Your task to perform on an android device: Open the stopwatch Image 0: 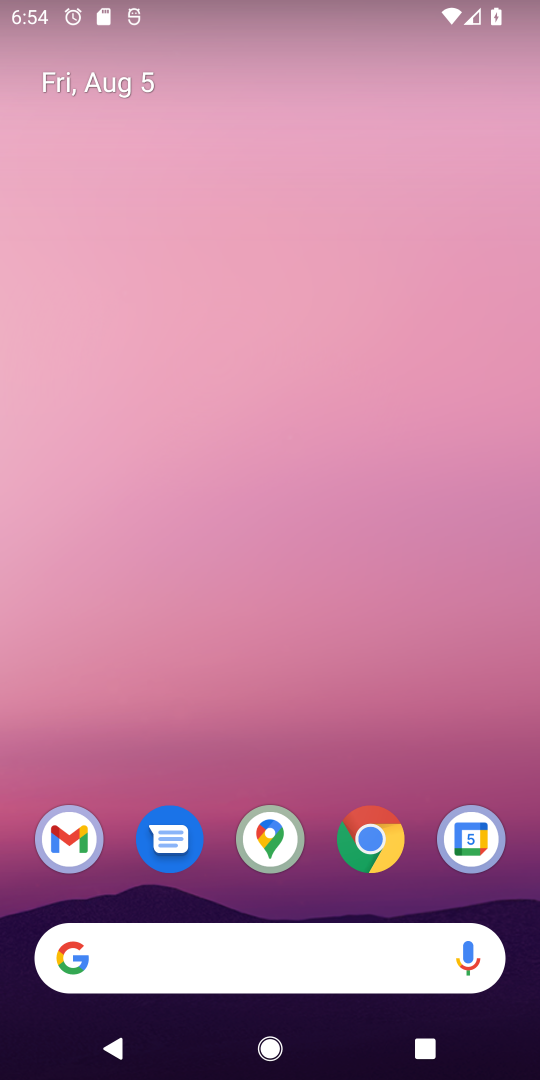
Step 0: drag from (311, 772) to (214, 78)
Your task to perform on an android device: Open the stopwatch Image 1: 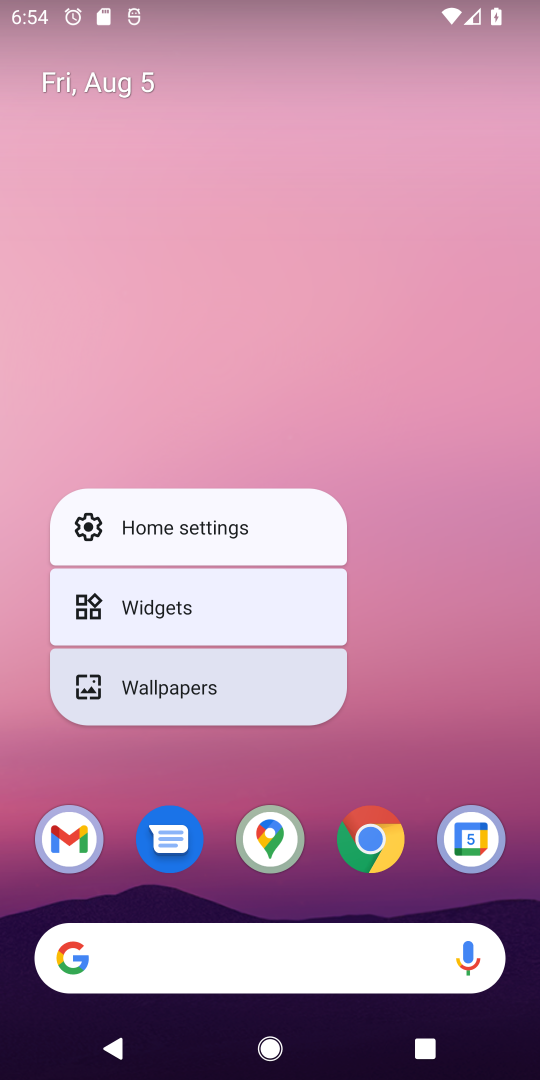
Step 1: click (233, 245)
Your task to perform on an android device: Open the stopwatch Image 2: 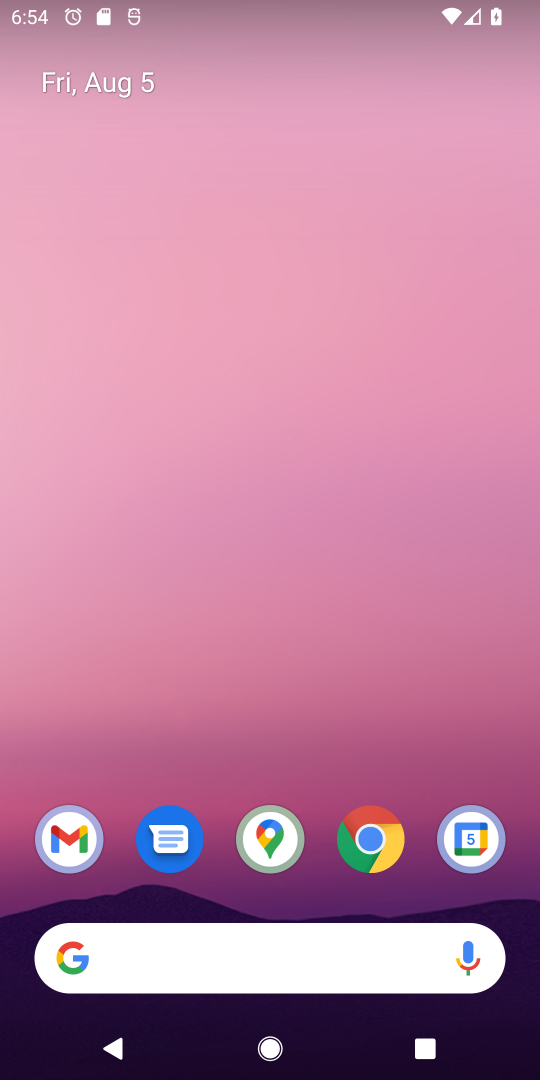
Step 2: drag from (257, 719) to (235, 137)
Your task to perform on an android device: Open the stopwatch Image 3: 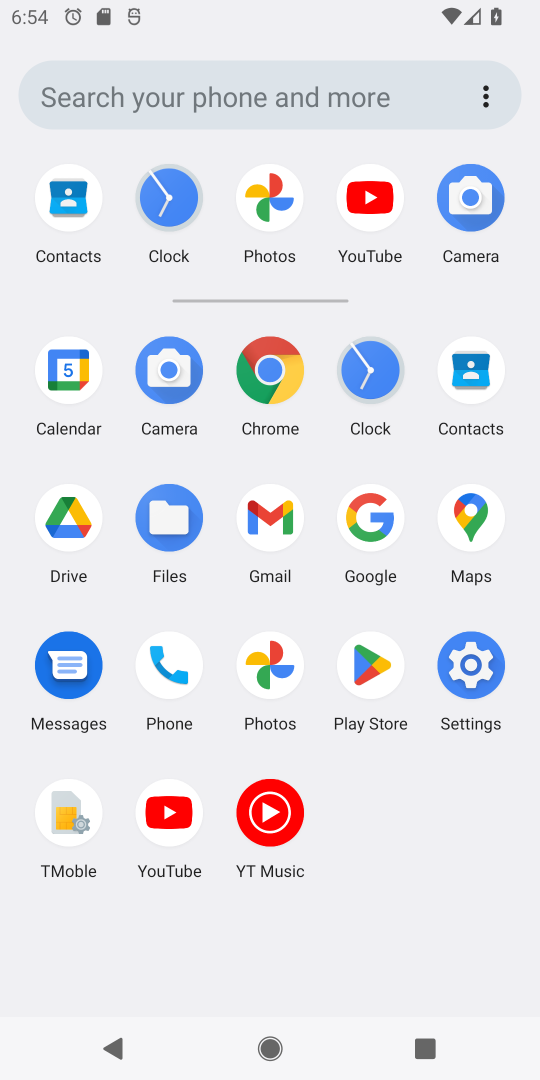
Step 3: click (347, 391)
Your task to perform on an android device: Open the stopwatch Image 4: 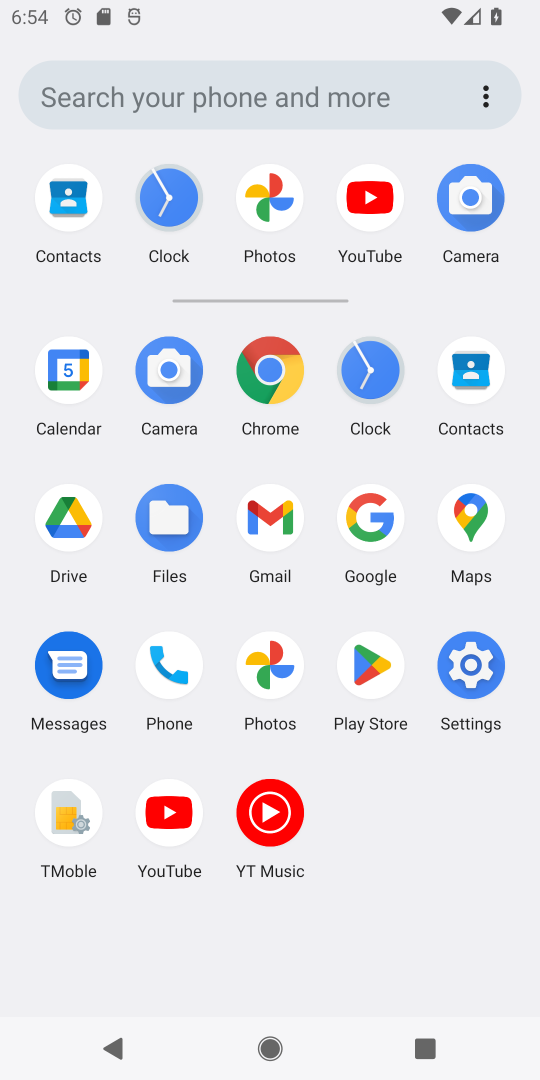
Step 4: click (375, 391)
Your task to perform on an android device: Open the stopwatch Image 5: 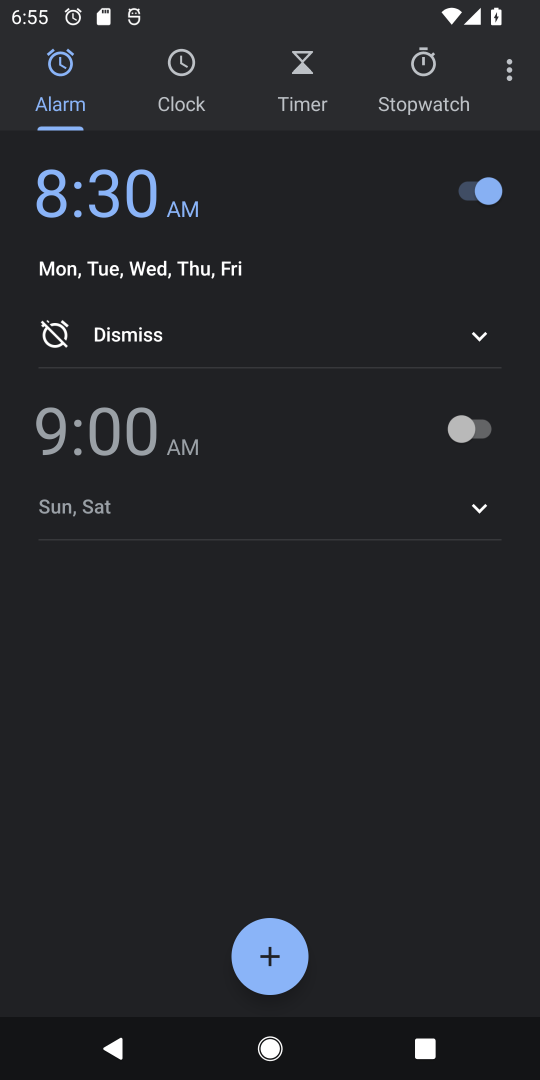
Step 5: click (416, 73)
Your task to perform on an android device: Open the stopwatch Image 6: 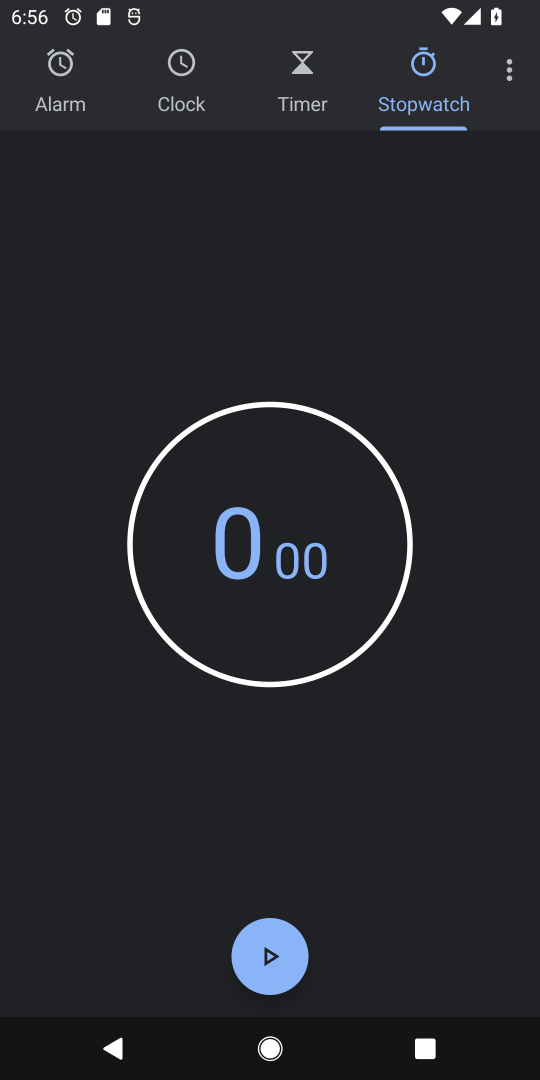
Step 6: task complete